Your task to perform on an android device: turn off airplane mode Image 0: 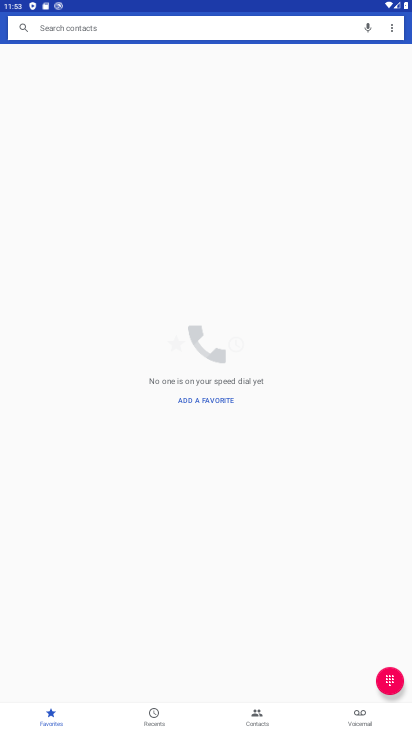
Step 0: press home button
Your task to perform on an android device: turn off airplane mode Image 1: 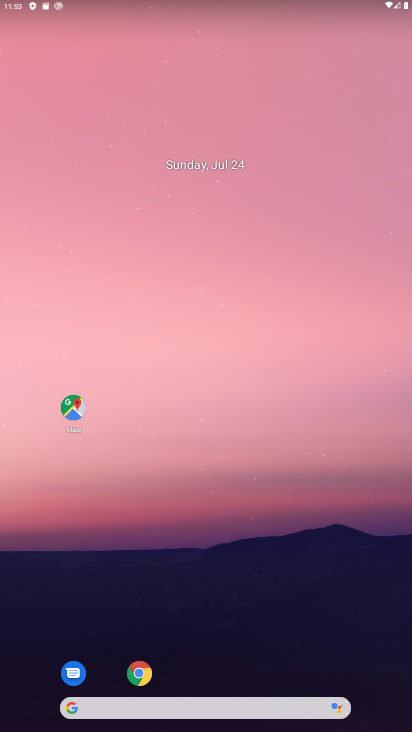
Step 1: drag from (172, 701) to (265, 115)
Your task to perform on an android device: turn off airplane mode Image 2: 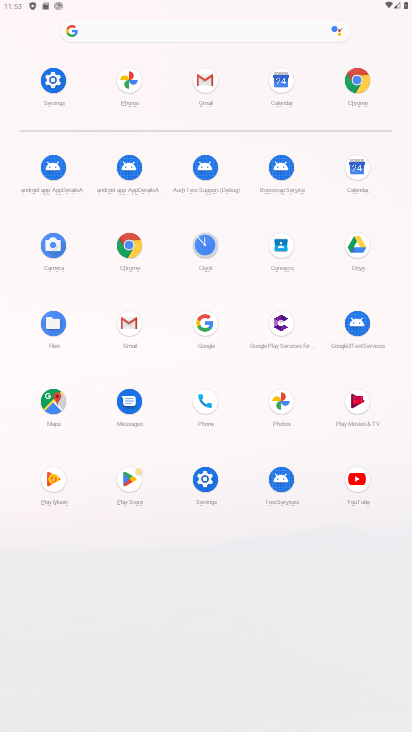
Step 2: click (53, 79)
Your task to perform on an android device: turn off airplane mode Image 3: 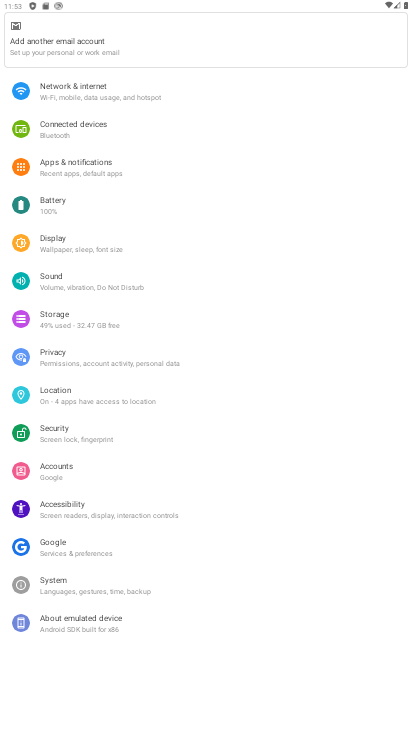
Step 3: click (110, 97)
Your task to perform on an android device: turn off airplane mode Image 4: 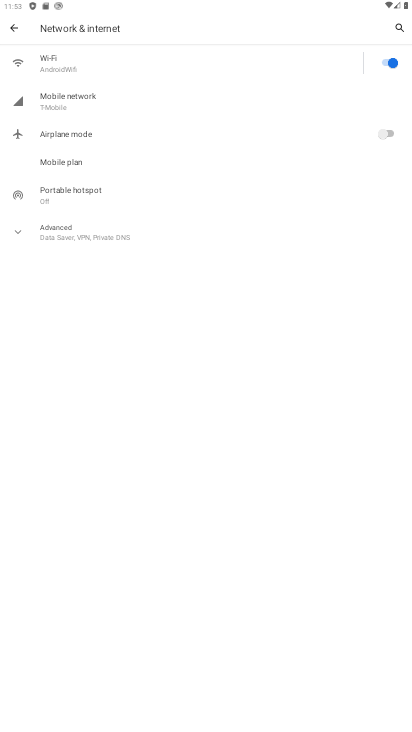
Step 4: task complete